Your task to perform on an android device: show emergency info Image 0: 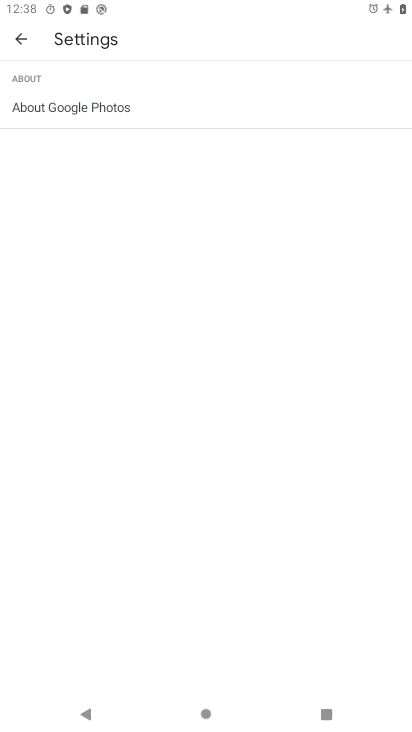
Step 0: press back button
Your task to perform on an android device: show emergency info Image 1: 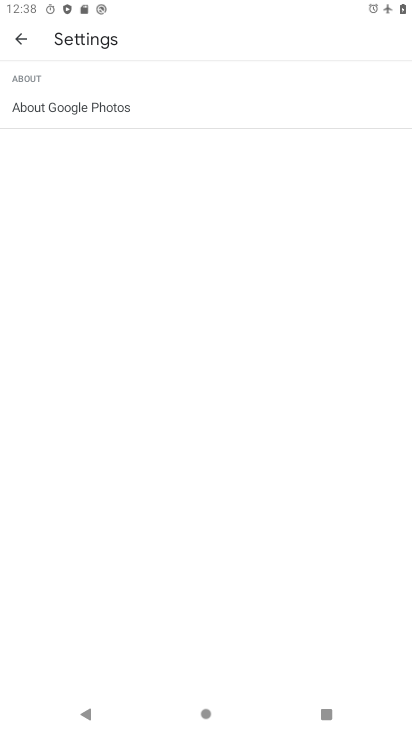
Step 1: press home button
Your task to perform on an android device: show emergency info Image 2: 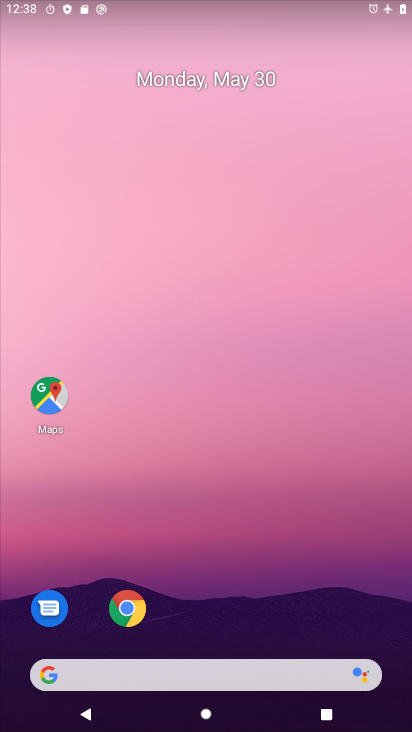
Step 2: drag from (215, 645) to (162, 0)
Your task to perform on an android device: show emergency info Image 3: 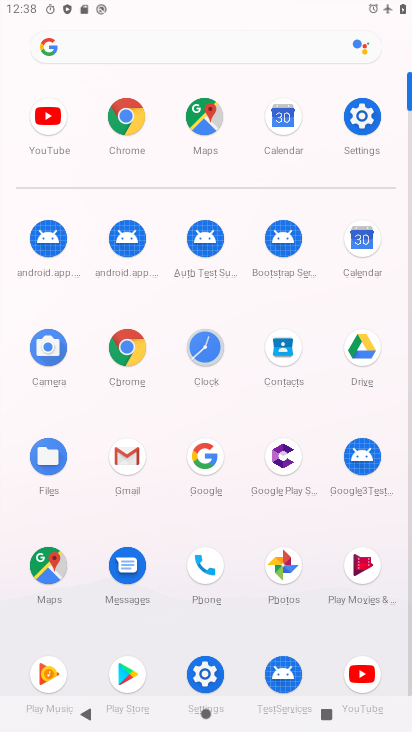
Step 3: click (369, 119)
Your task to perform on an android device: show emergency info Image 4: 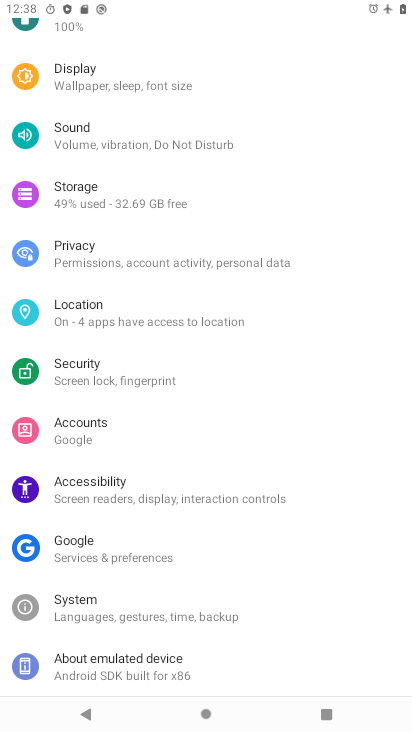
Step 4: drag from (142, 631) to (127, 273)
Your task to perform on an android device: show emergency info Image 5: 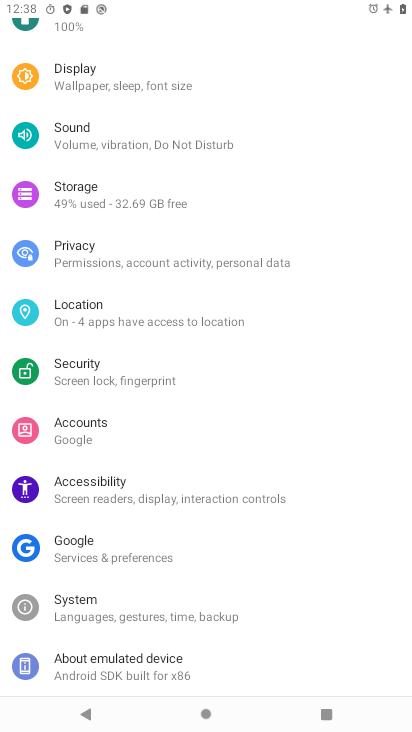
Step 5: click (120, 642)
Your task to perform on an android device: show emergency info Image 6: 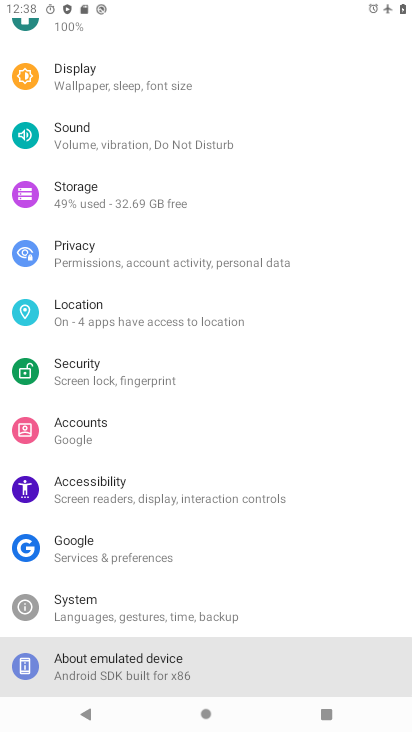
Step 6: click (120, 642)
Your task to perform on an android device: show emergency info Image 7: 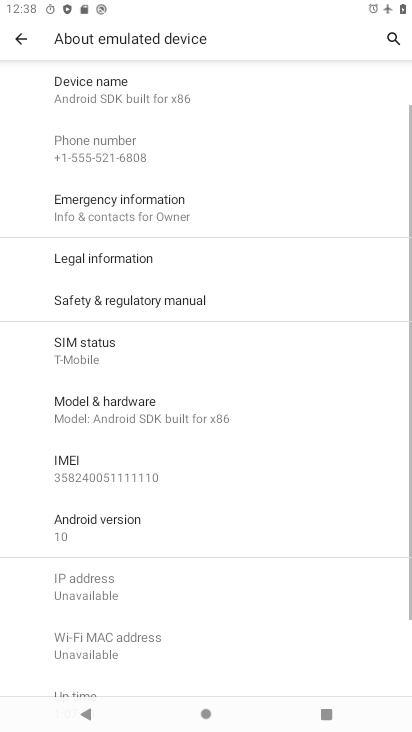
Step 7: click (69, 213)
Your task to perform on an android device: show emergency info Image 8: 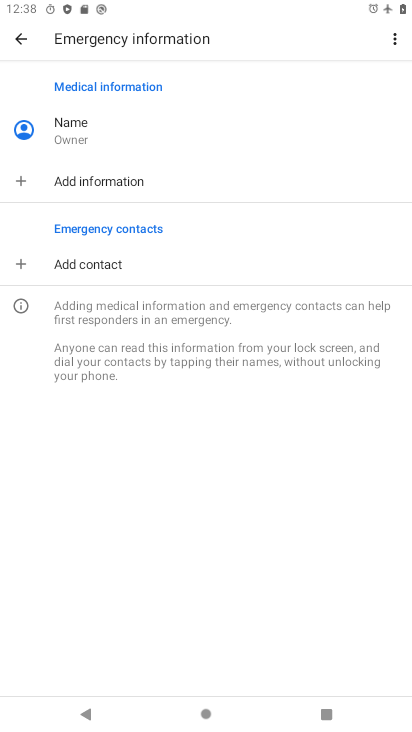
Step 8: task complete